Your task to perform on an android device: turn off notifications in google photos Image 0: 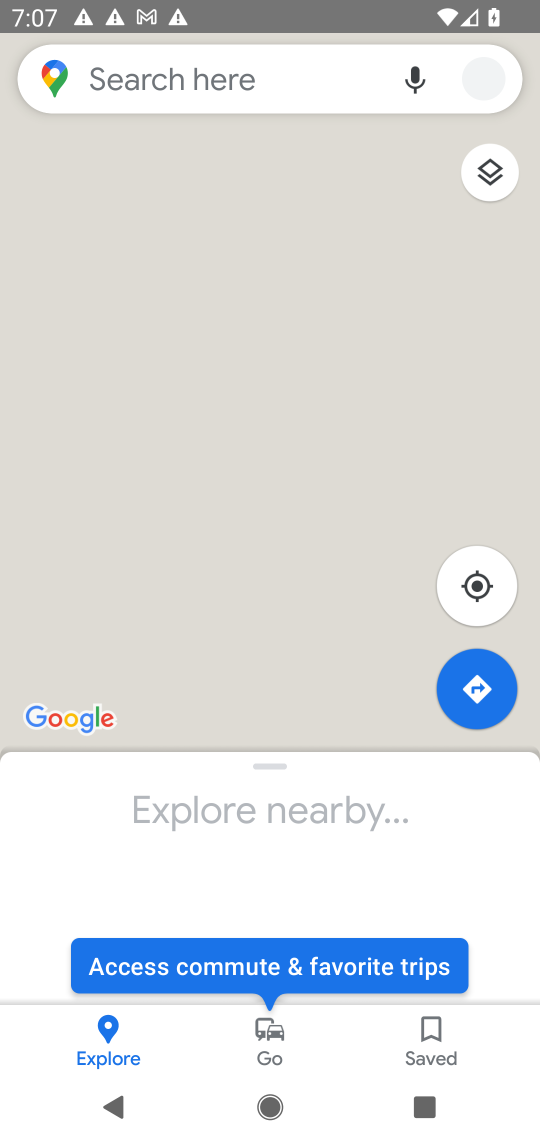
Step 0: press home button
Your task to perform on an android device: turn off notifications in google photos Image 1: 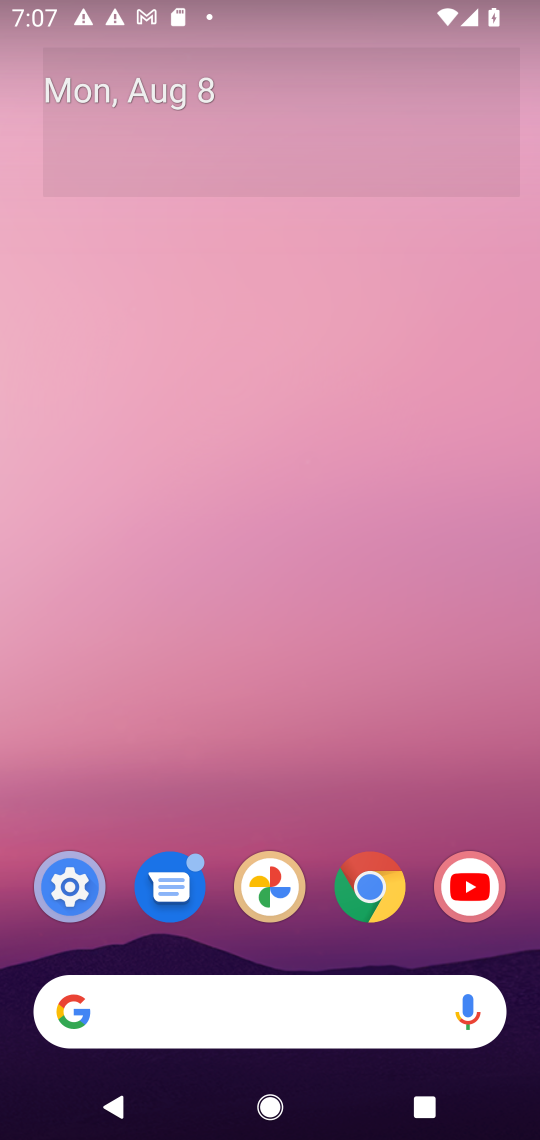
Step 1: click (298, 892)
Your task to perform on an android device: turn off notifications in google photos Image 2: 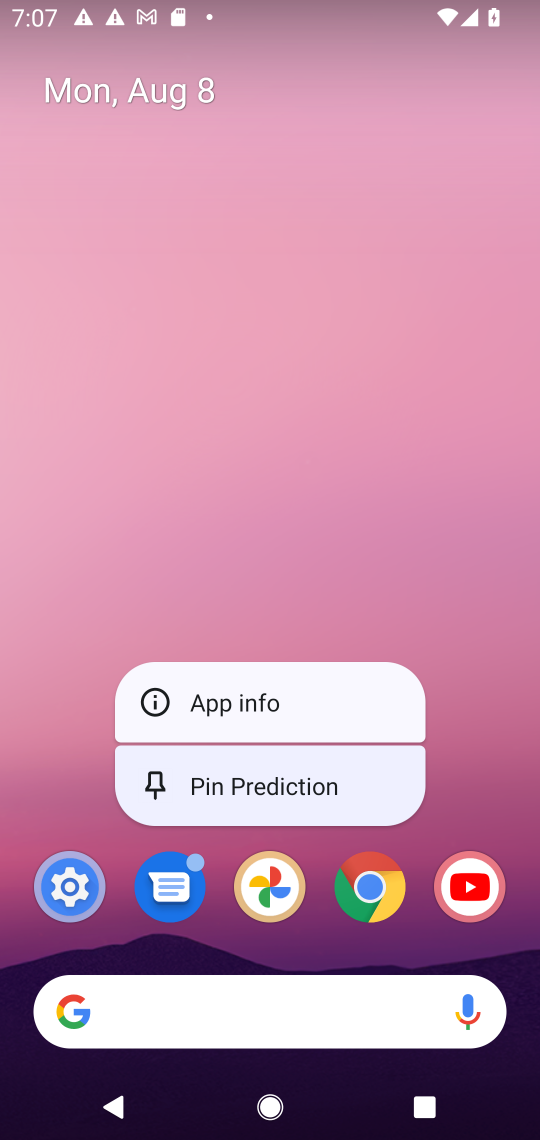
Step 2: click (230, 694)
Your task to perform on an android device: turn off notifications in google photos Image 3: 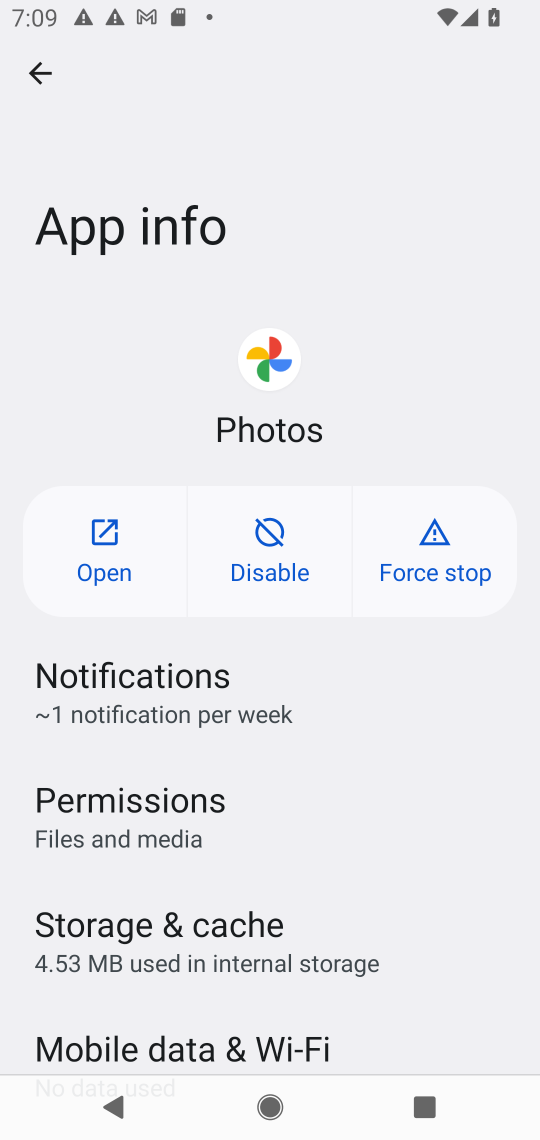
Step 3: click (82, 661)
Your task to perform on an android device: turn off notifications in google photos Image 4: 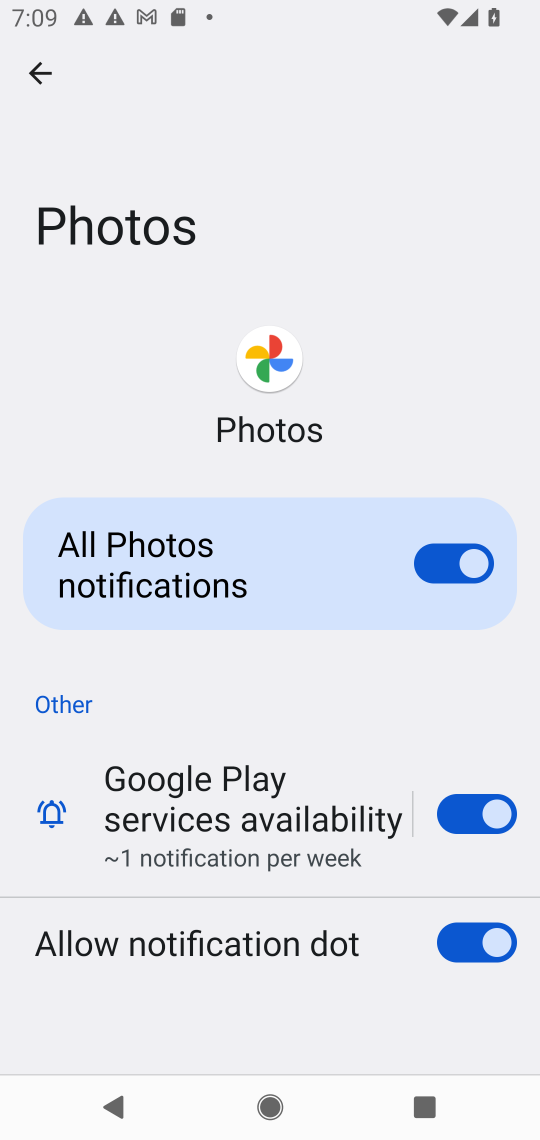
Step 4: click (478, 564)
Your task to perform on an android device: turn off notifications in google photos Image 5: 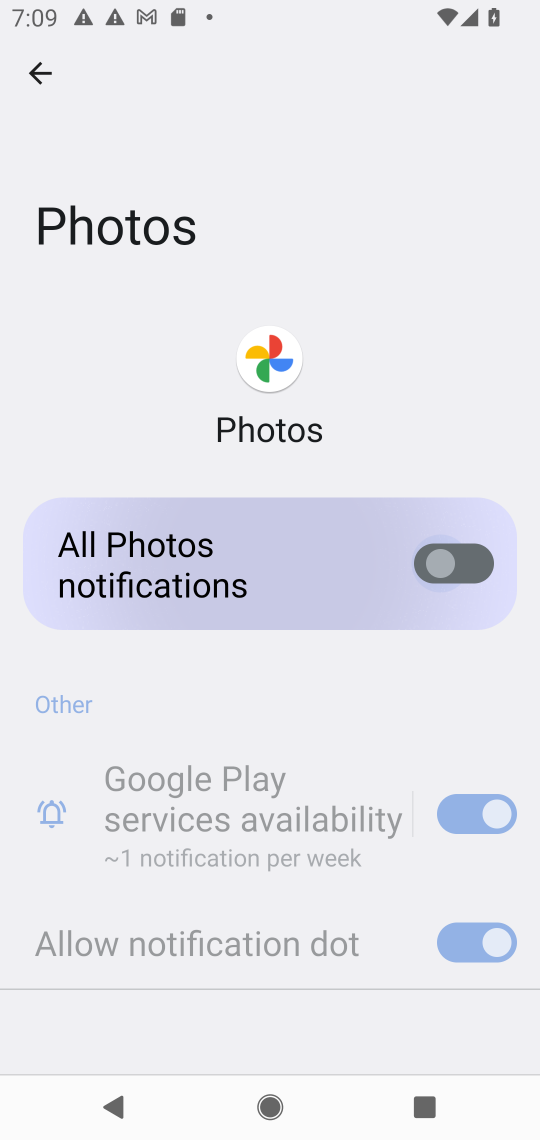
Step 5: task complete